Your task to perform on an android device: Open Google Image 0: 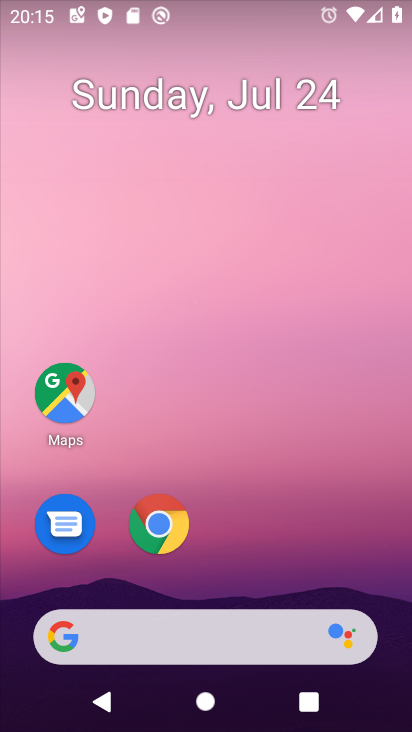
Step 0: drag from (250, 552) to (290, 10)
Your task to perform on an android device: Open Google Image 1: 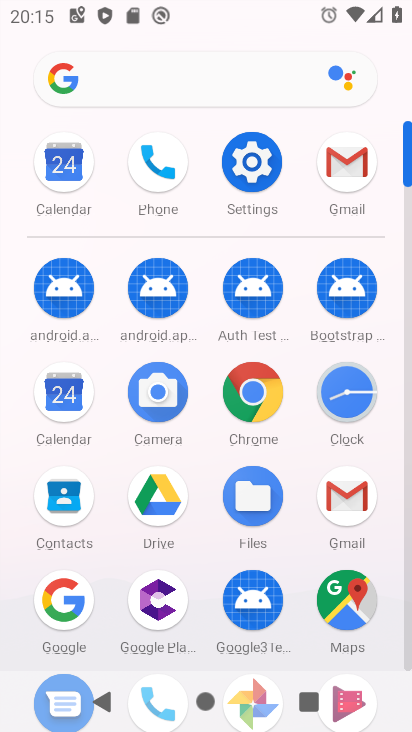
Step 1: click (56, 603)
Your task to perform on an android device: Open Google Image 2: 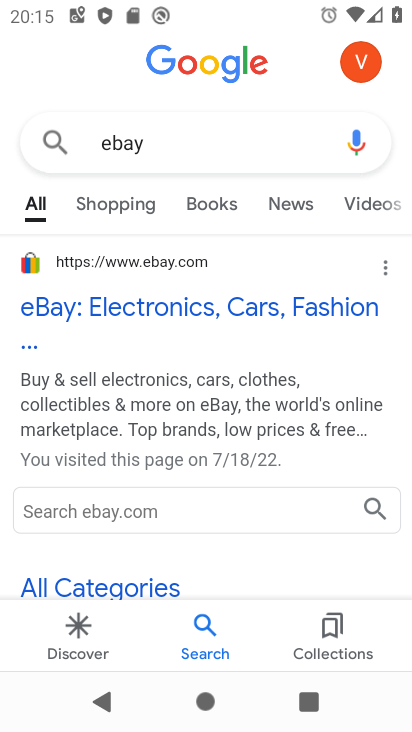
Step 2: click (240, 67)
Your task to perform on an android device: Open Google Image 3: 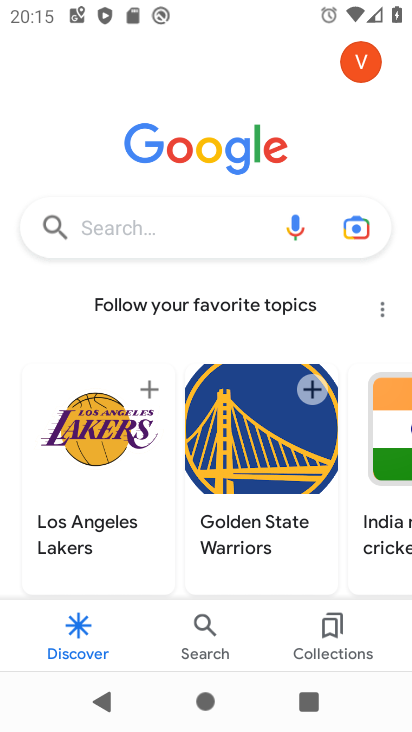
Step 3: task complete